Your task to perform on an android device: allow notifications from all sites in the chrome app Image 0: 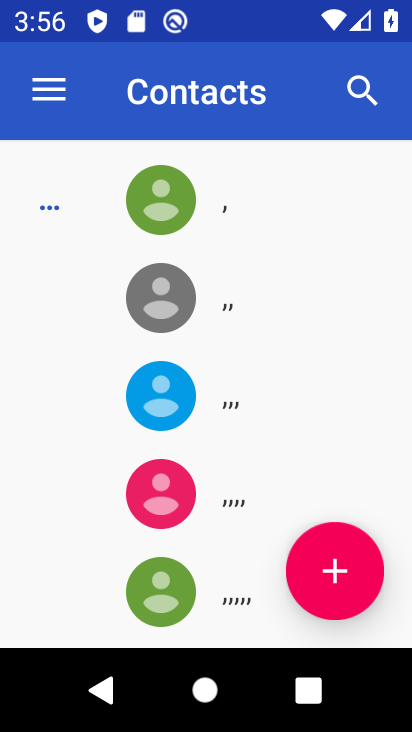
Step 0: press back button
Your task to perform on an android device: allow notifications from all sites in the chrome app Image 1: 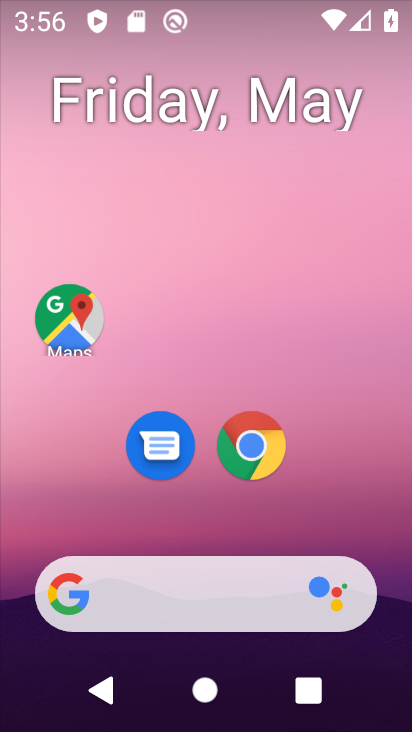
Step 1: click (254, 449)
Your task to perform on an android device: allow notifications from all sites in the chrome app Image 2: 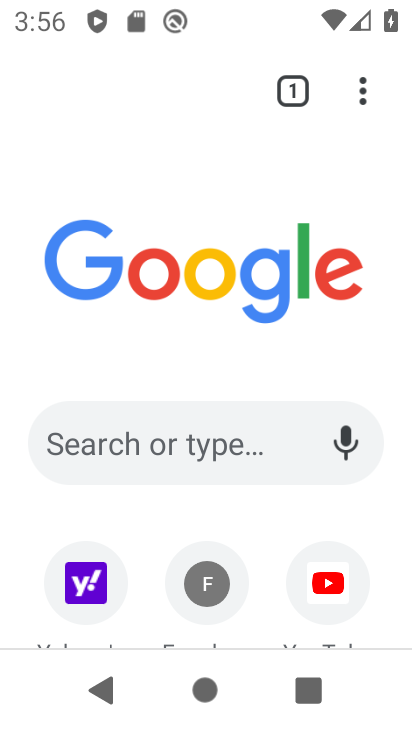
Step 2: drag from (366, 94) to (111, 481)
Your task to perform on an android device: allow notifications from all sites in the chrome app Image 3: 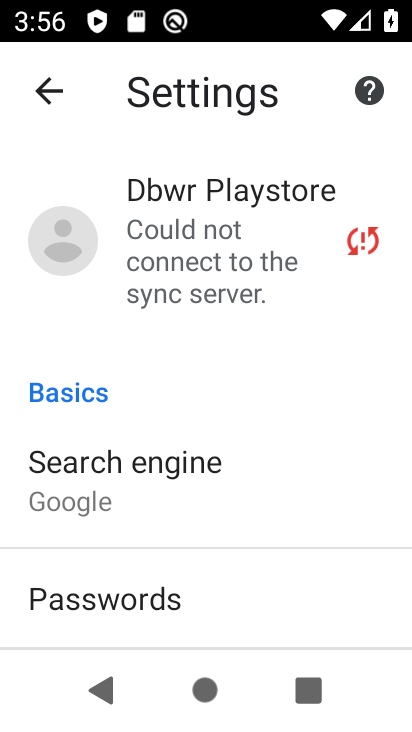
Step 3: drag from (210, 608) to (264, 284)
Your task to perform on an android device: allow notifications from all sites in the chrome app Image 4: 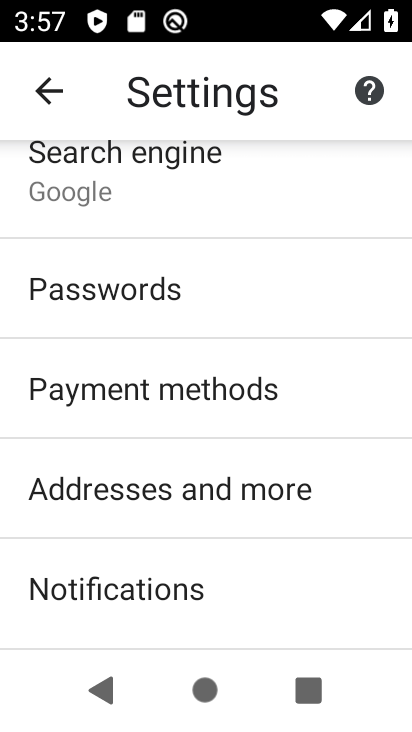
Step 4: click (140, 585)
Your task to perform on an android device: allow notifications from all sites in the chrome app Image 5: 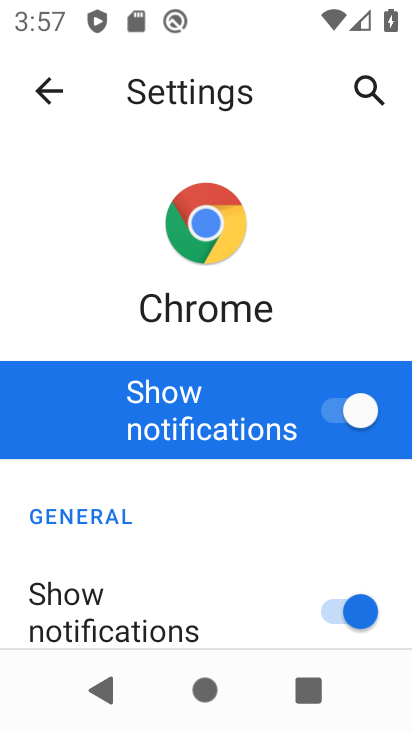
Step 5: task complete